Your task to perform on an android device: Go to Yahoo.com Image 0: 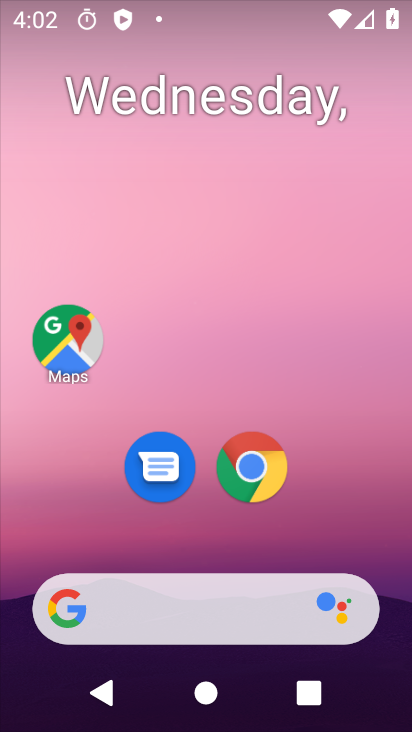
Step 0: click (271, 446)
Your task to perform on an android device: Go to Yahoo.com Image 1: 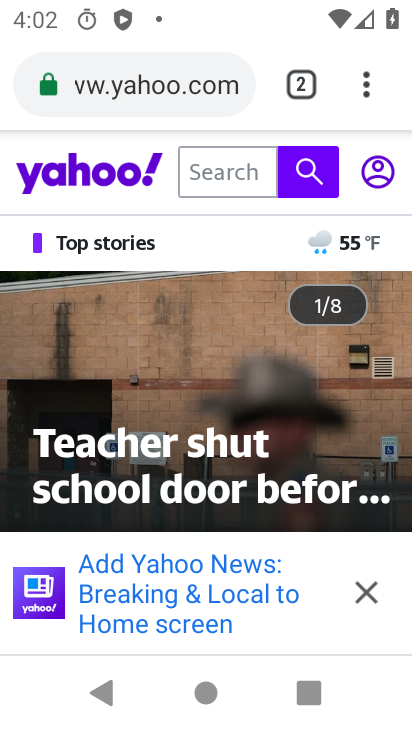
Step 1: task complete